Your task to perform on an android device: Find coffee shops on Maps Image 0: 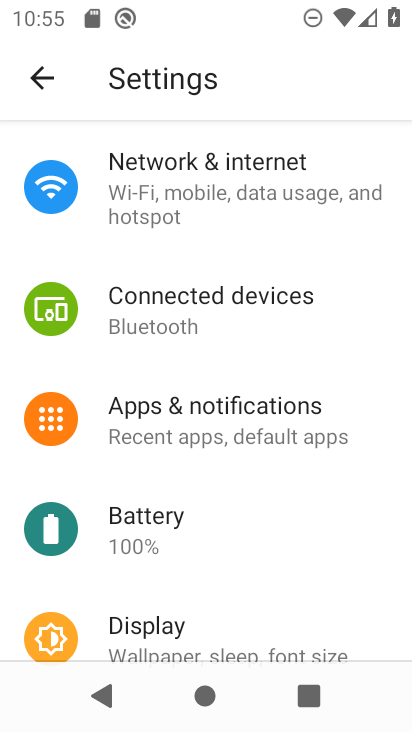
Step 0: press home button
Your task to perform on an android device: Find coffee shops on Maps Image 1: 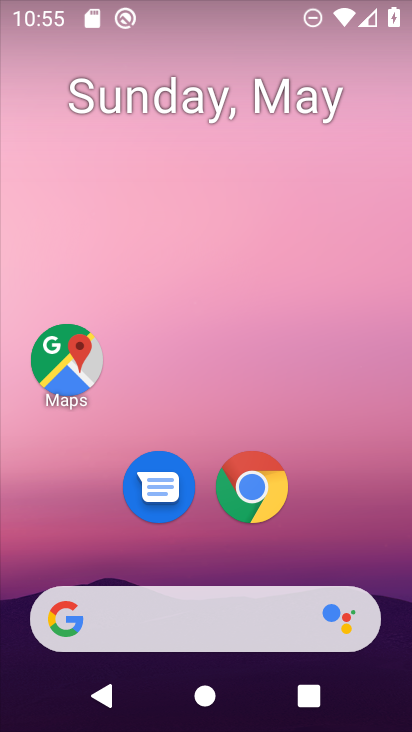
Step 1: click (77, 378)
Your task to perform on an android device: Find coffee shops on Maps Image 2: 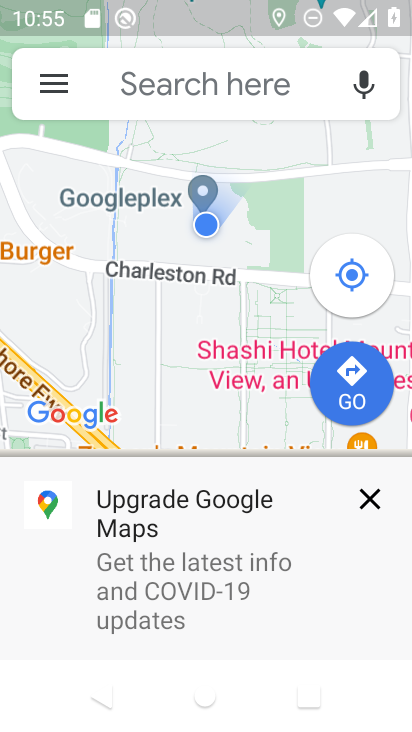
Step 2: click (167, 92)
Your task to perform on an android device: Find coffee shops on Maps Image 3: 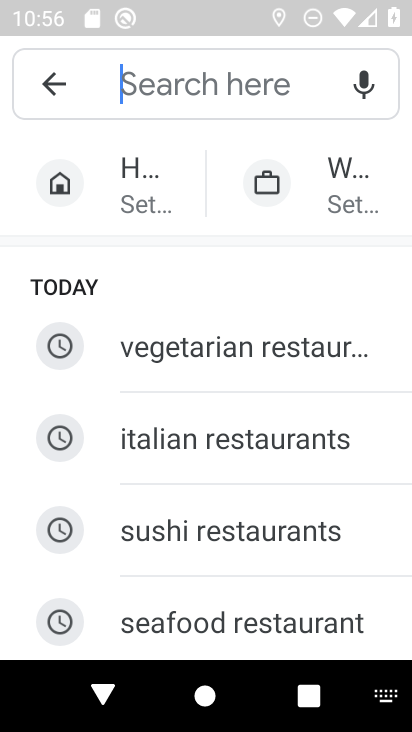
Step 3: type "coffee"
Your task to perform on an android device: Find coffee shops on Maps Image 4: 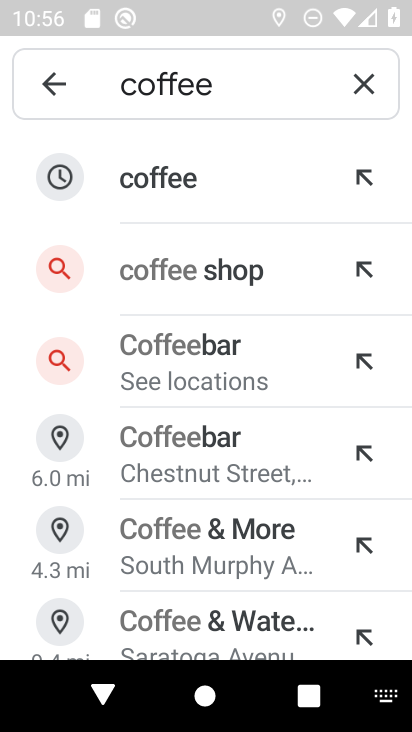
Step 4: click (211, 273)
Your task to perform on an android device: Find coffee shops on Maps Image 5: 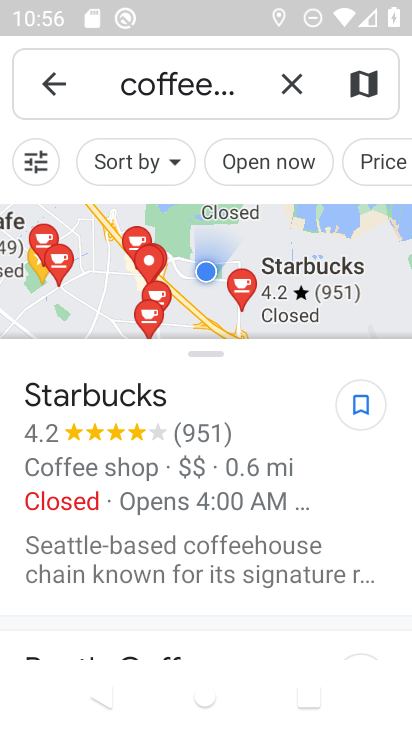
Step 5: task complete